Your task to perform on an android device: check data usage Image 0: 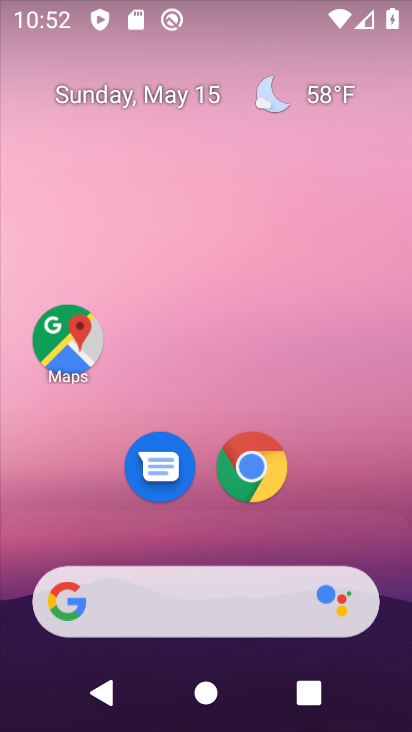
Step 0: press home button
Your task to perform on an android device: check data usage Image 1: 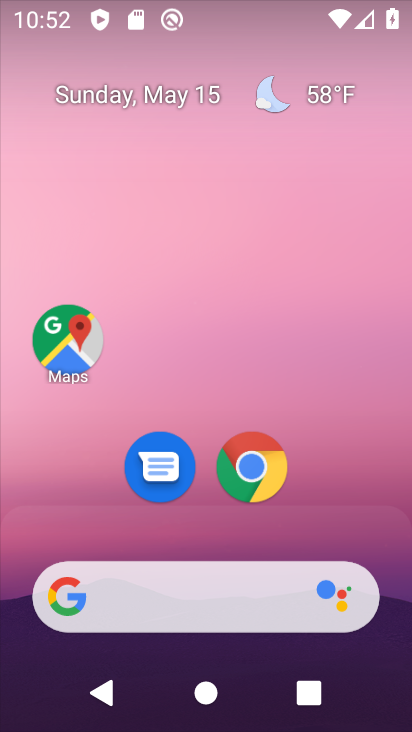
Step 1: drag from (199, 544) to (215, 94)
Your task to perform on an android device: check data usage Image 2: 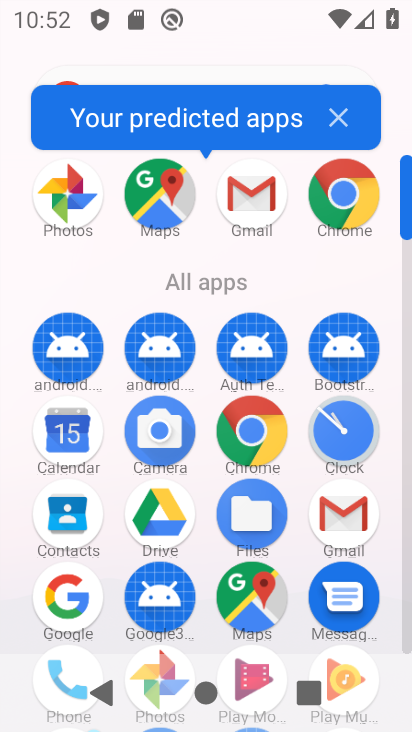
Step 2: drag from (200, 557) to (220, 110)
Your task to perform on an android device: check data usage Image 3: 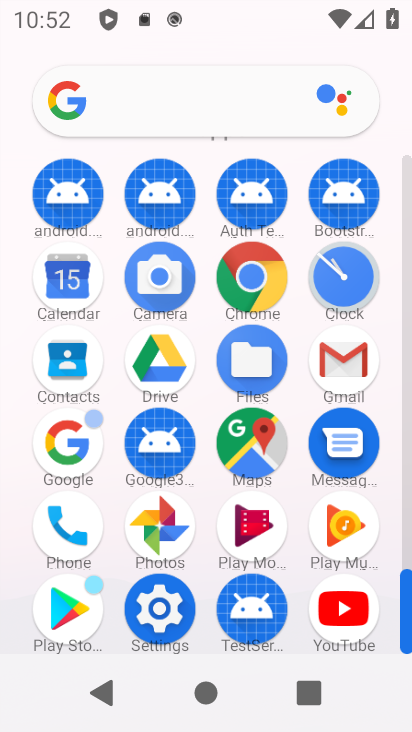
Step 3: click (160, 608)
Your task to perform on an android device: check data usage Image 4: 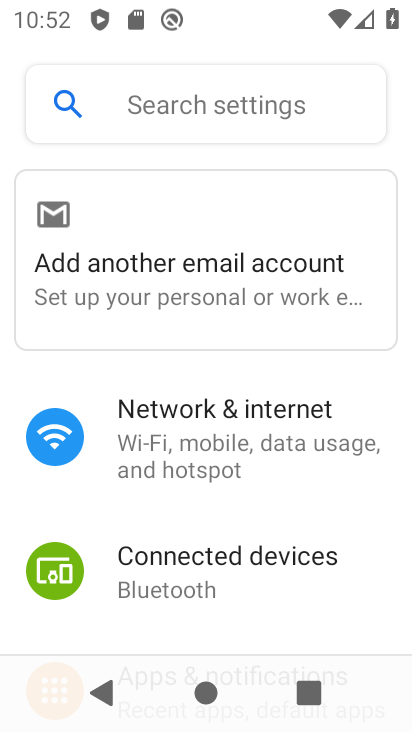
Step 4: click (179, 443)
Your task to perform on an android device: check data usage Image 5: 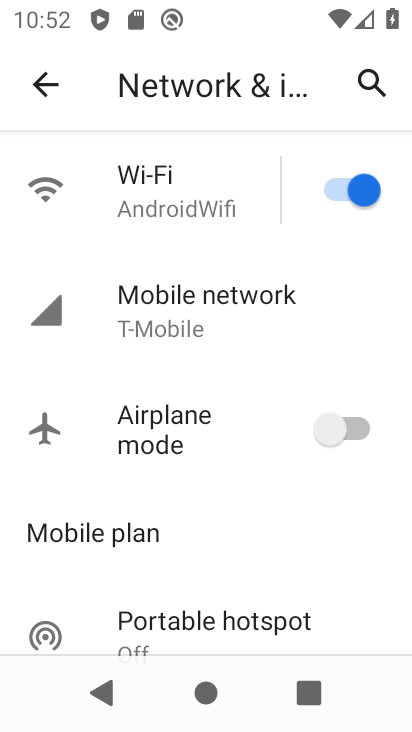
Step 5: click (210, 308)
Your task to perform on an android device: check data usage Image 6: 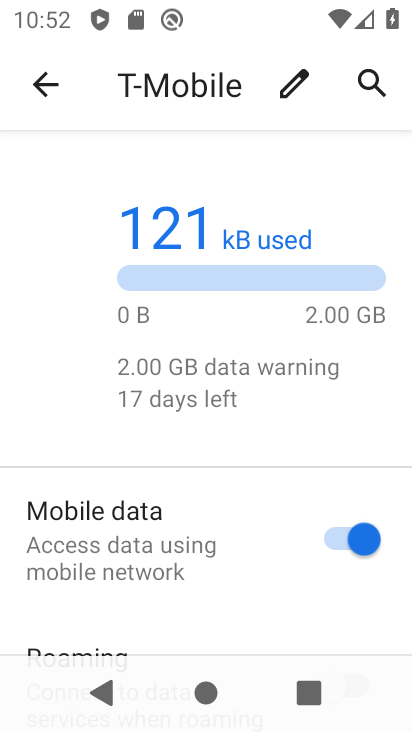
Step 6: drag from (160, 591) to (170, 351)
Your task to perform on an android device: check data usage Image 7: 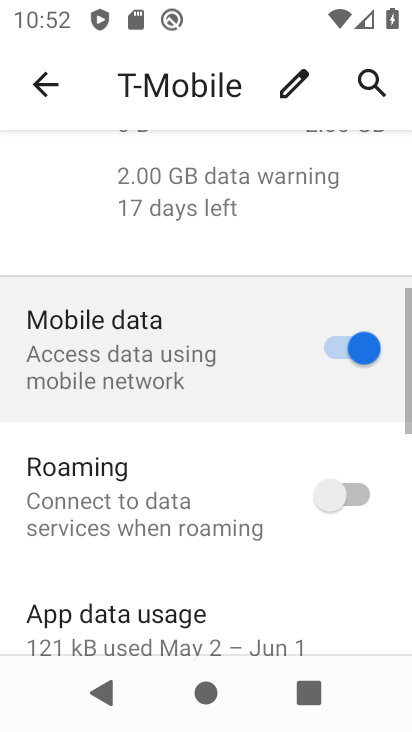
Step 7: click (182, 146)
Your task to perform on an android device: check data usage Image 8: 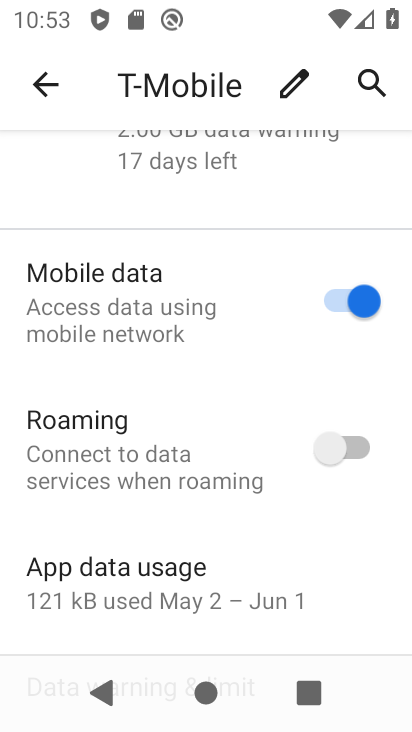
Step 8: click (176, 581)
Your task to perform on an android device: check data usage Image 9: 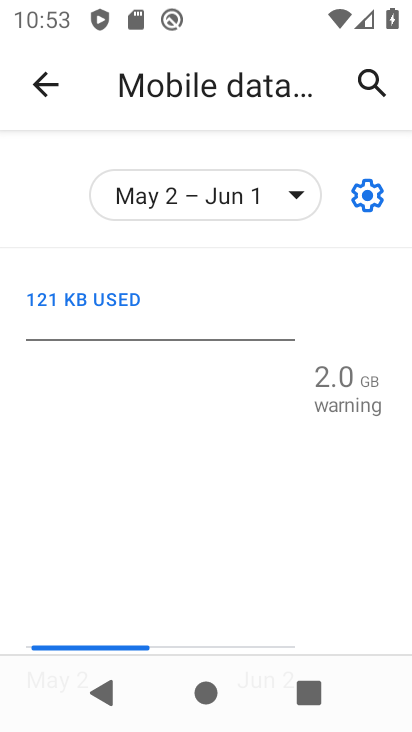
Step 9: task complete